Your task to perform on an android device: Open internet settings Image 0: 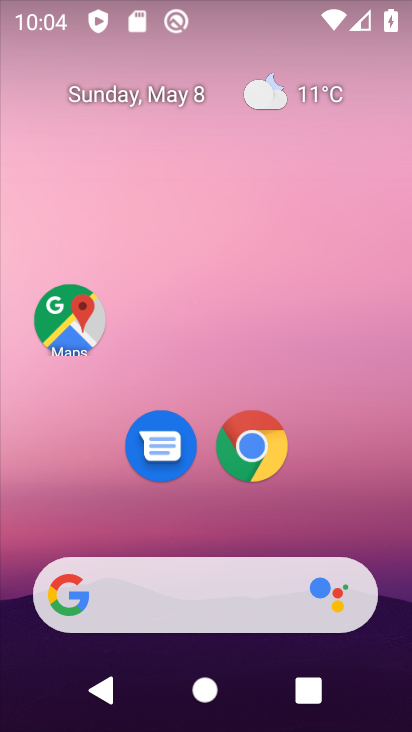
Step 0: drag from (381, 552) to (351, 14)
Your task to perform on an android device: Open internet settings Image 1: 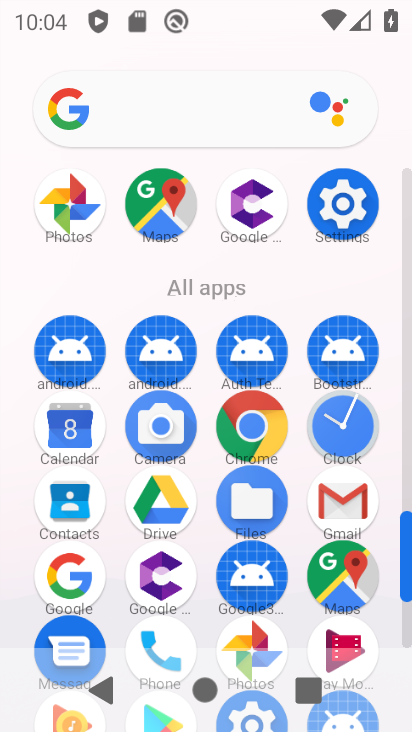
Step 1: click (348, 200)
Your task to perform on an android device: Open internet settings Image 2: 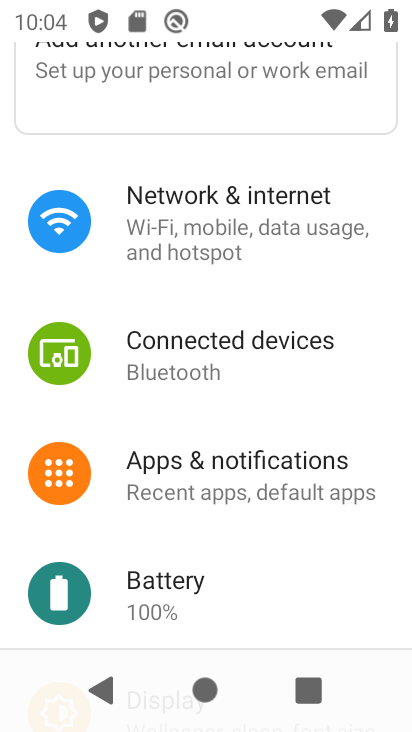
Step 2: click (243, 226)
Your task to perform on an android device: Open internet settings Image 3: 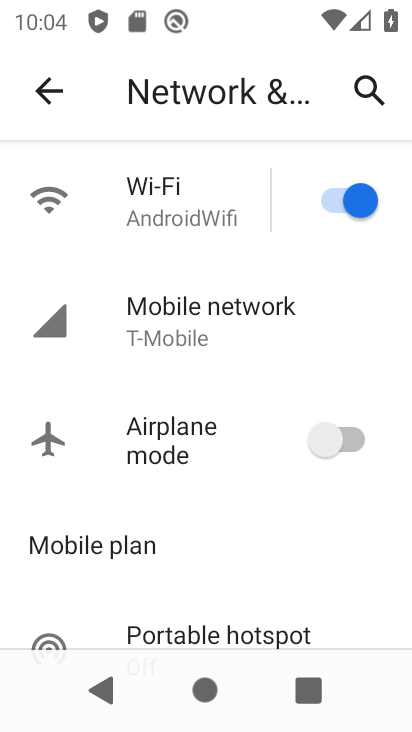
Step 3: drag from (234, 512) to (284, 213)
Your task to perform on an android device: Open internet settings Image 4: 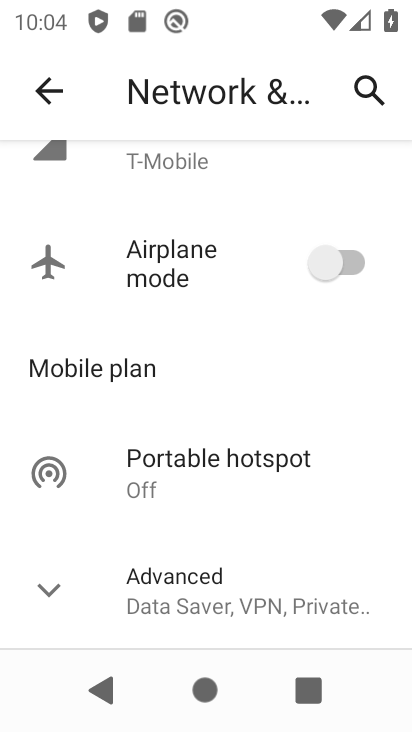
Step 4: drag from (182, 535) to (247, 287)
Your task to perform on an android device: Open internet settings Image 5: 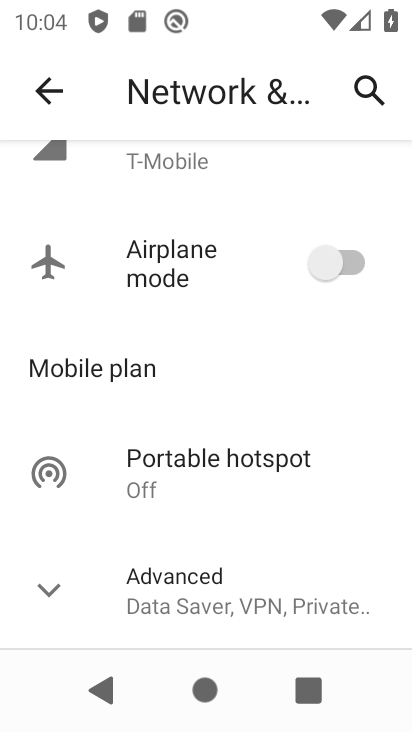
Step 5: click (40, 593)
Your task to perform on an android device: Open internet settings Image 6: 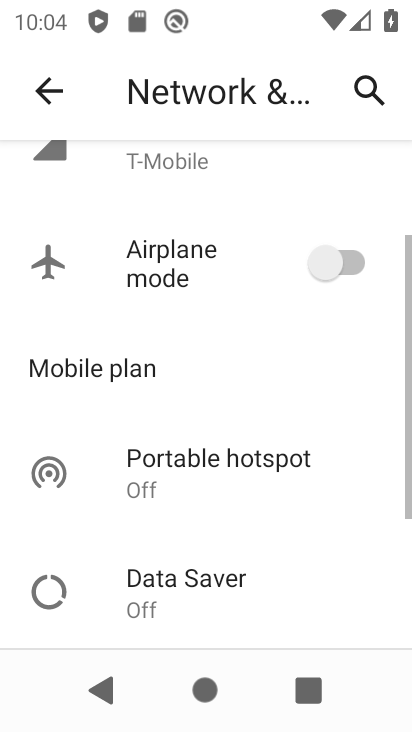
Step 6: task complete